Your task to perform on an android device: Go to sound settings Image 0: 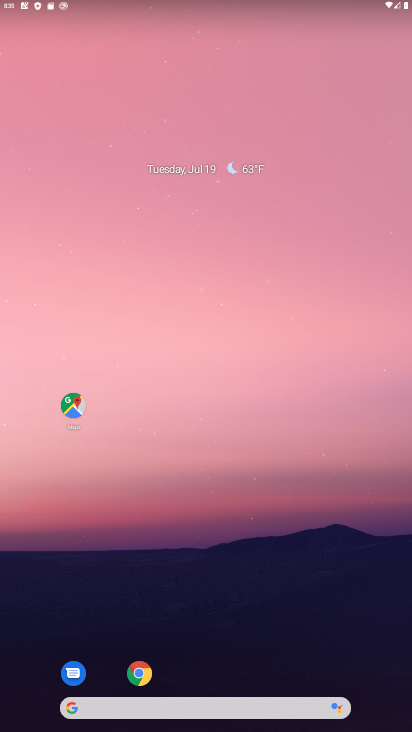
Step 0: drag from (229, 665) to (245, 125)
Your task to perform on an android device: Go to sound settings Image 1: 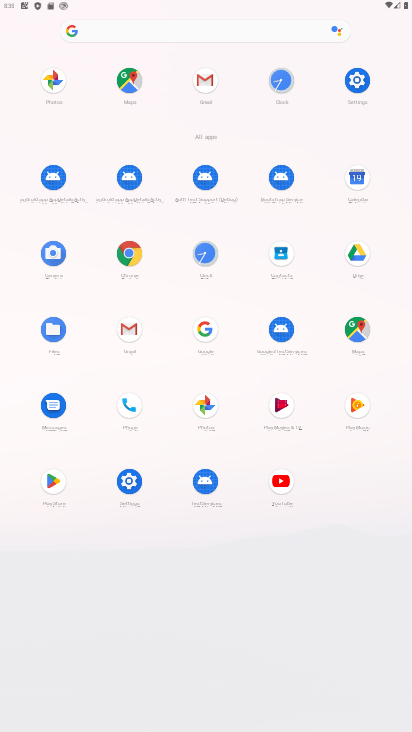
Step 1: click (123, 474)
Your task to perform on an android device: Go to sound settings Image 2: 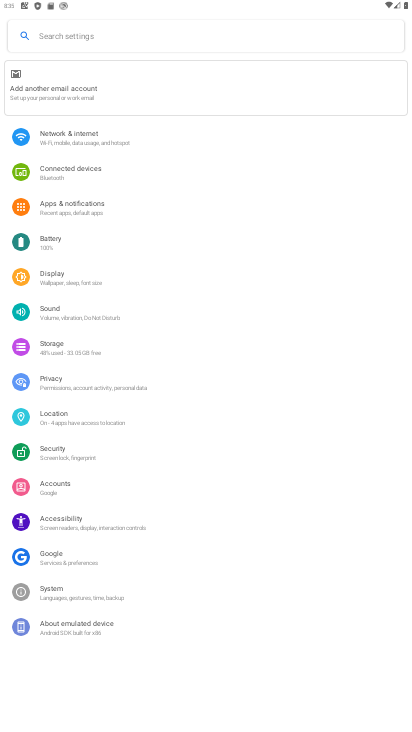
Step 2: click (75, 319)
Your task to perform on an android device: Go to sound settings Image 3: 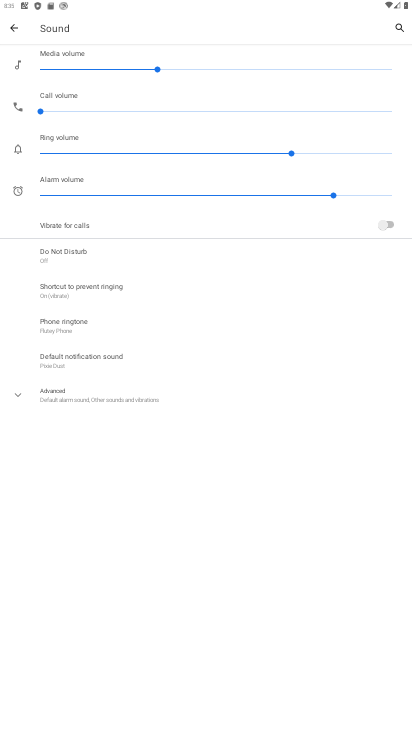
Step 3: task complete